Your task to perform on an android device: change the clock display to show seconds Image 0: 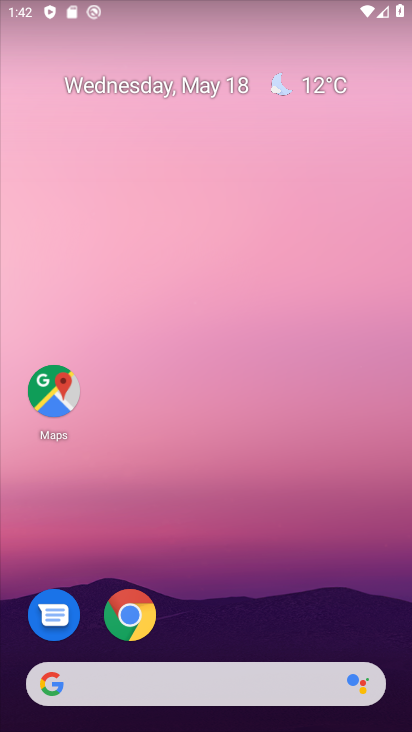
Step 0: drag from (327, 613) to (290, 45)
Your task to perform on an android device: change the clock display to show seconds Image 1: 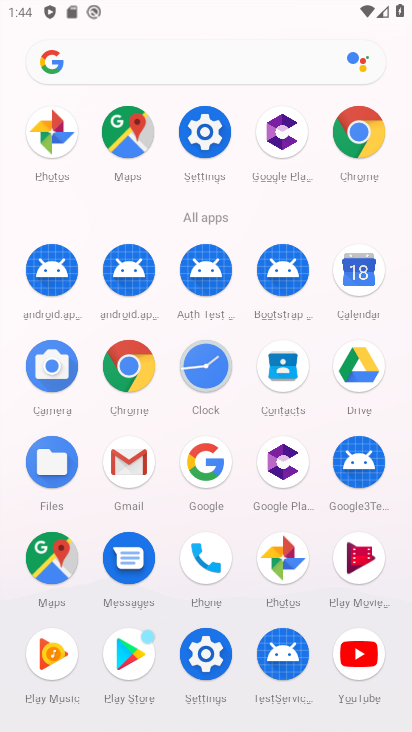
Step 1: click (205, 359)
Your task to perform on an android device: change the clock display to show seconds Image 2: 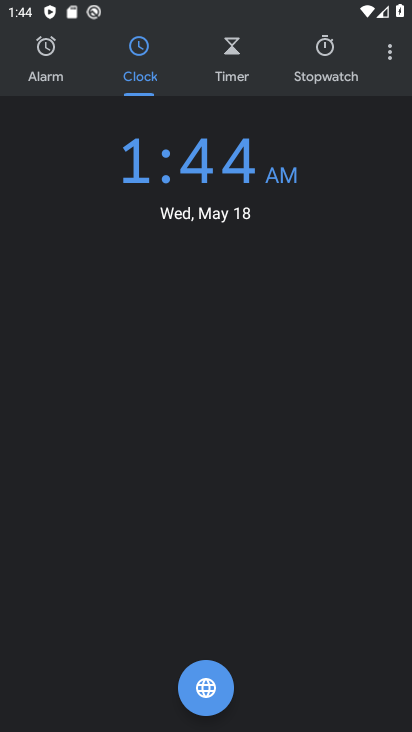
Step 2: click (386, 56)
Your task to perform on an android device: change the clock display to show seconds Image 3: 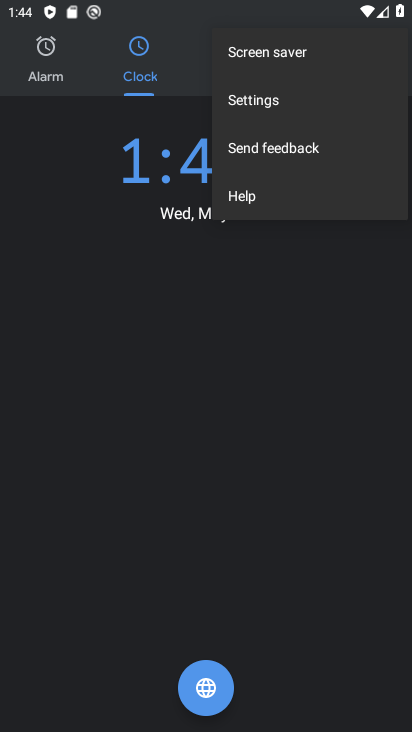
Step 3: click (301, 113)
Your task to perform on an android device: change the clock display to show seconds Image 4: 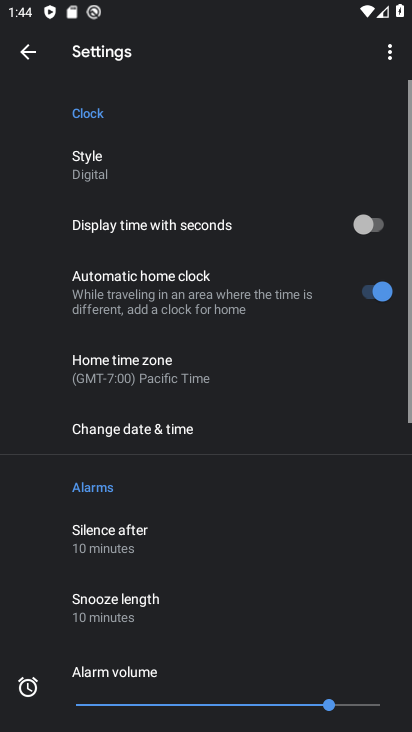
Step 4: click (315, 238)
Your task to perform on an android device: change the clock display to show seconds Image 5: 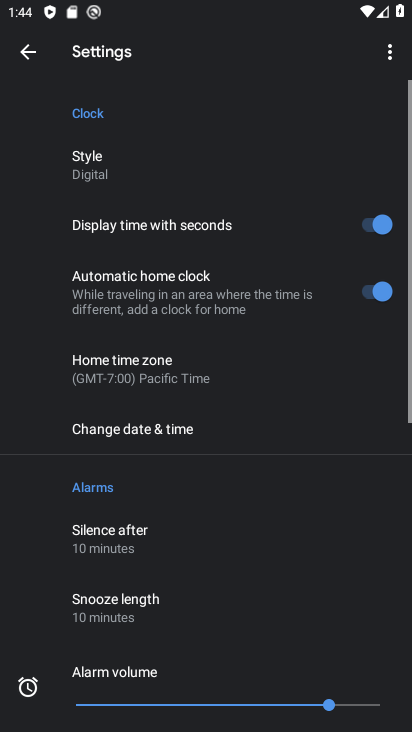
Step 5: task complete